Your task to perform on an android device: delete location history Image 0: 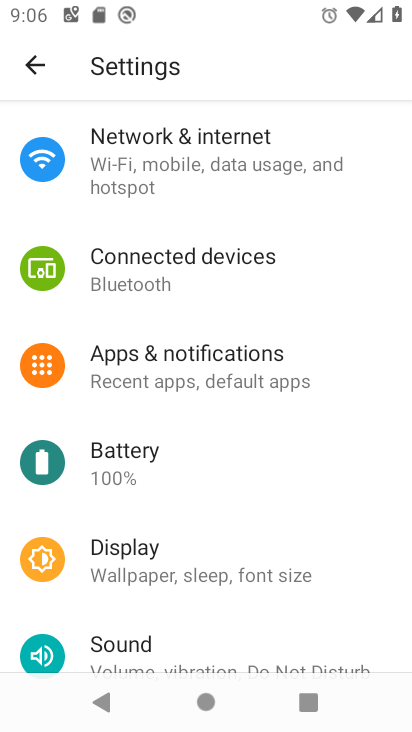
Step 0: press home button
Your task to perform on an android device: delete location history Image 1: 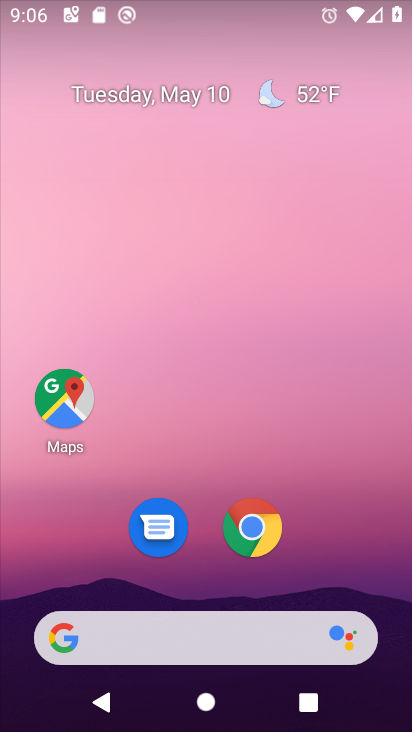
Step 1: click (56, 369)
Your task to perform on an android device: delete location history Image 2: 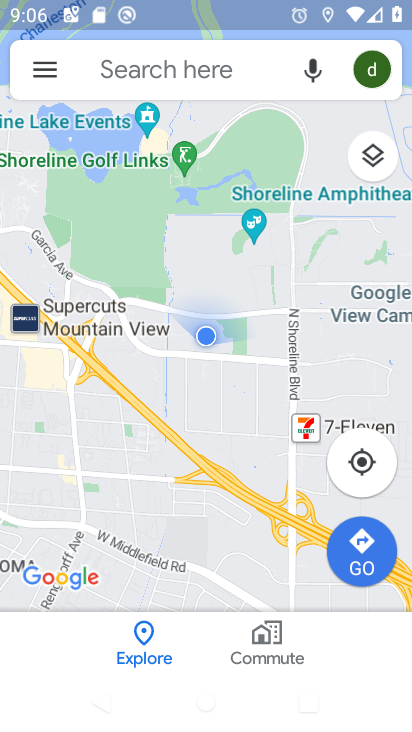
Step 2: click (51, 80)
Your task to perform on an android device: delete location history Image 3: 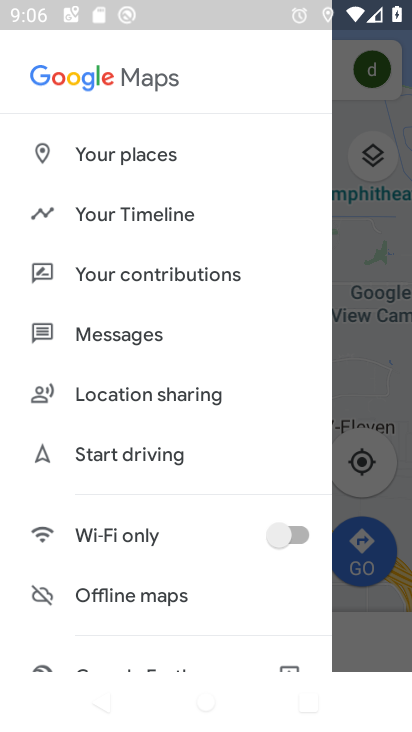
Step 3: drag from (145, 549) to (157, 355)
Your task to perform on an android device: delete location history Image 4: 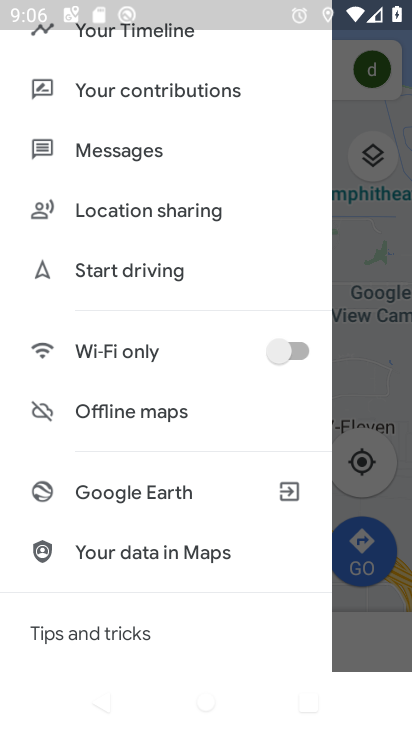
Step 4: drag from (126, 620) to (145, 335)
Your task to perform on an android device: delete location history Image 5: 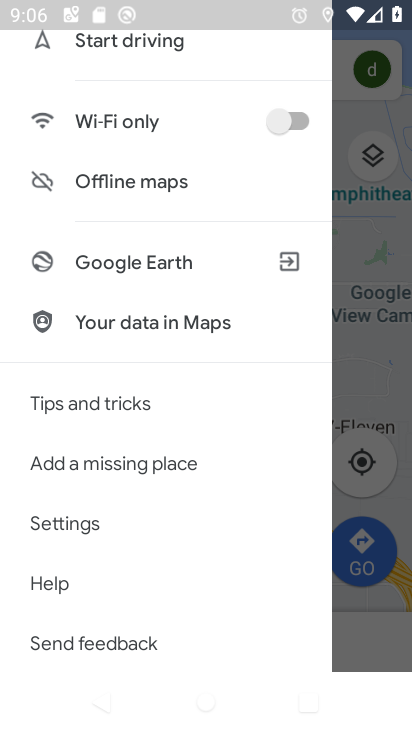
Step 5: click (78, 522)
Your task to perform on an android device: delete location history Image 6: 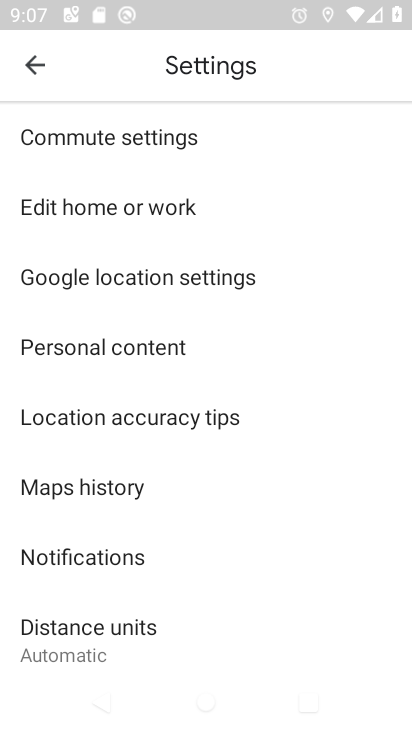
Step 6: click (115, 490)
Your task to perform on an android device: delete location history Image 7: 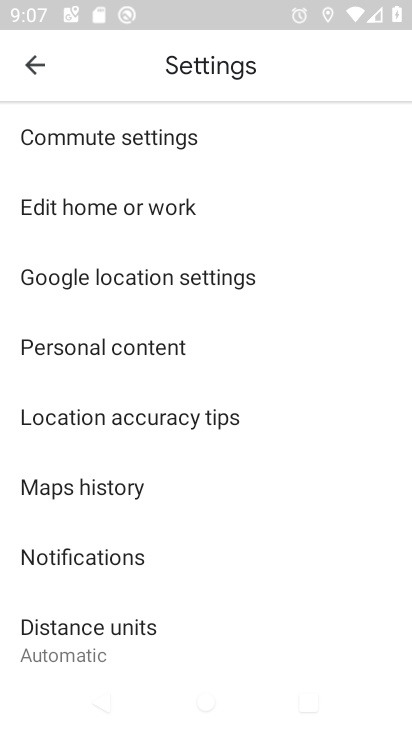
Step 7: click (100, 492)
Your task to perform on an android device: delete location history Image 8: 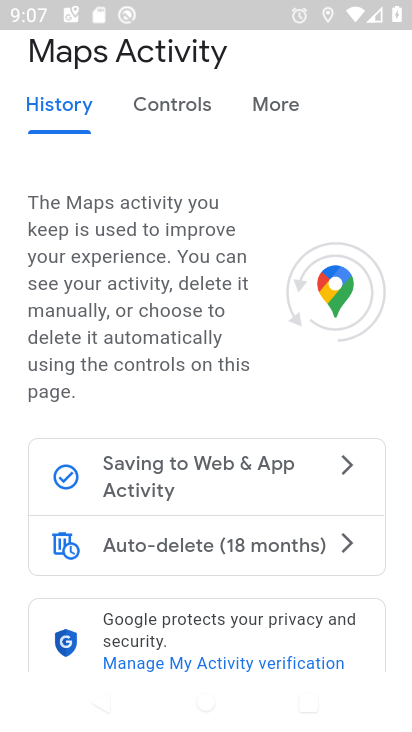
Step 8: drag from (107, 555) to (95, 326)
Your task to perform on an android device: delete location history Image 9: 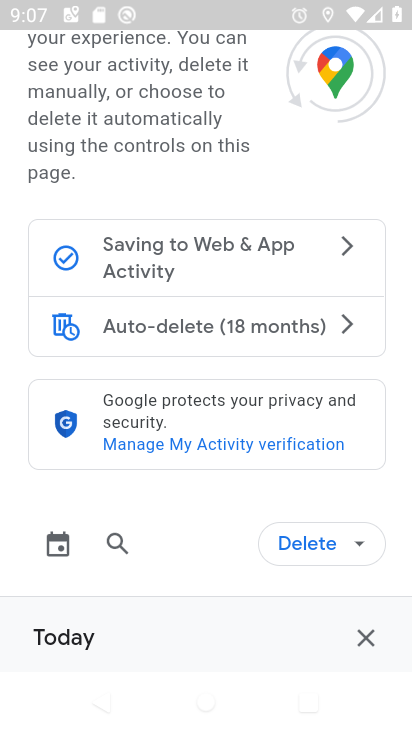
Step 9: click (319, 542)
Your task to perform on an android device: delete location history Image 10: 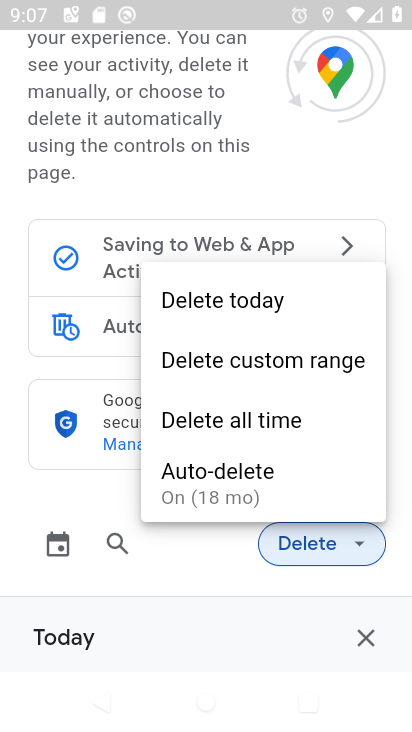
Step 10: click (360, 543)
Your task to perform on an android device: delete location history Image 11: 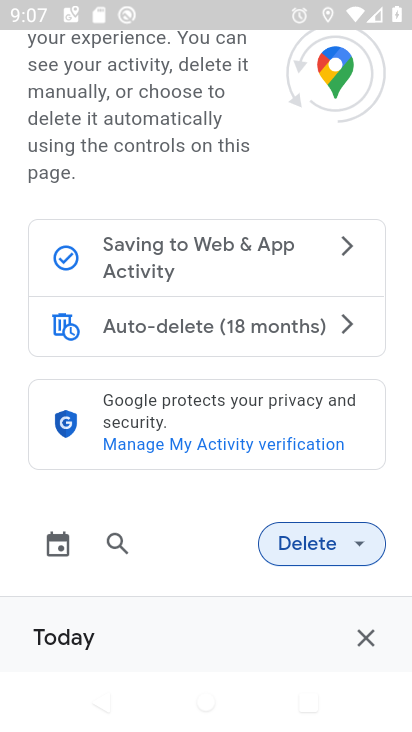
Step 11: click (360, 543)
Your task to perform on an android device: delete location history Image 12: 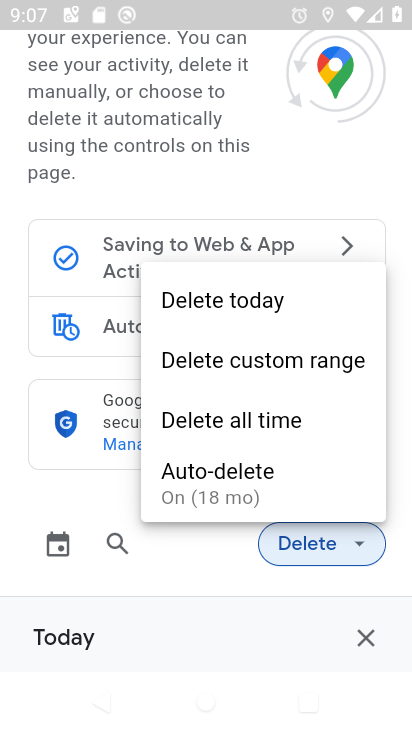
Step 12: click (224, 480)
Your task to perform on an android device: delete location history Image 13: 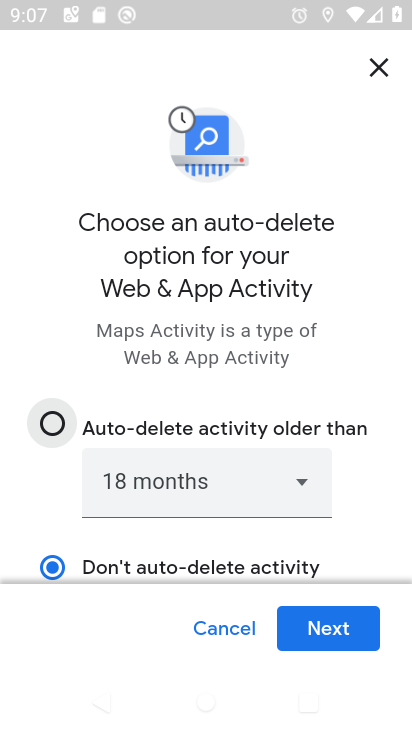
Step 13: click (312, 624)
Your task to perform on an android device: delete location history Image 14: 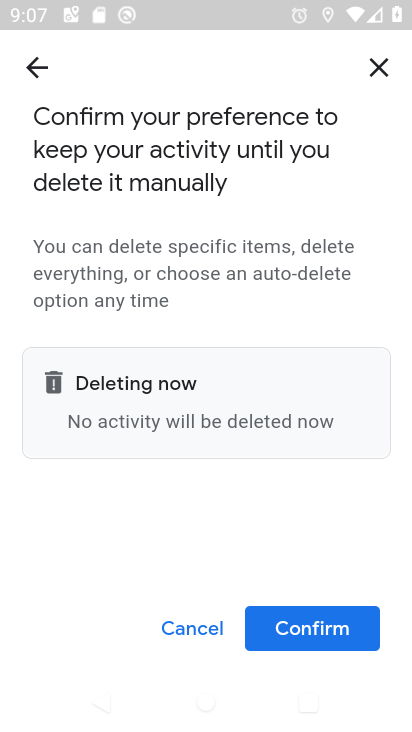
Step 14: click (312, 624)
Your task to perform on an android device: delete location history Image 15: 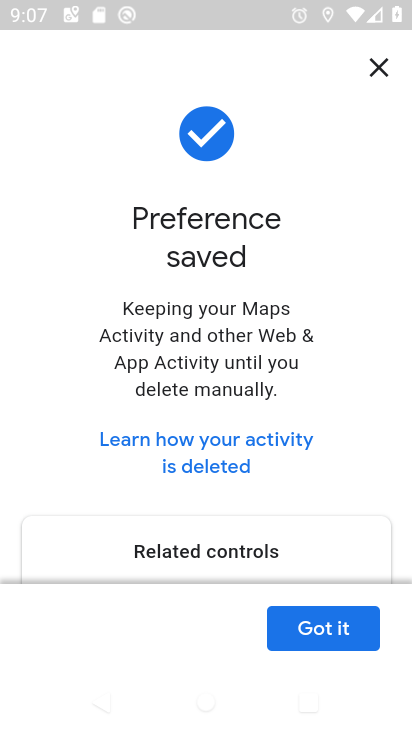
Step 15: click (312, 624)
Your task to perform on an android device: delete location history Image 16: 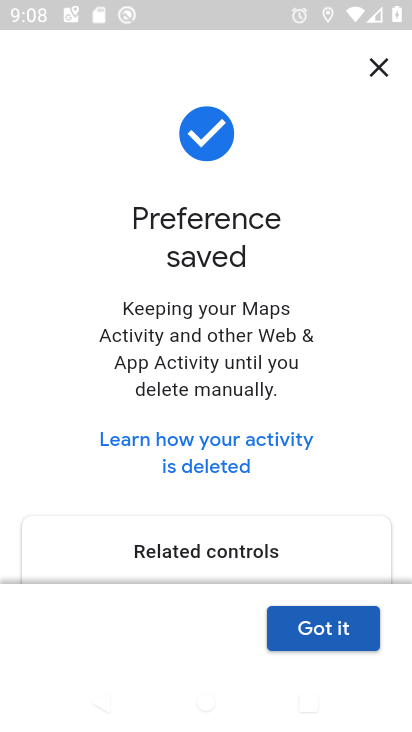
Step 16: click (330, 625)
Your task to perform on an android device: delete location history Image 17: 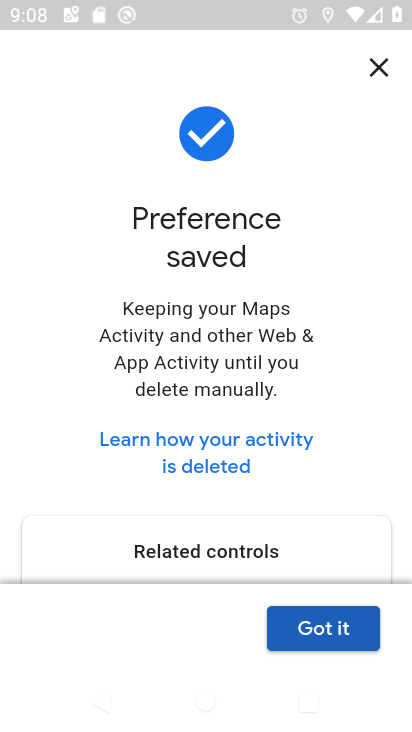
Step 17: task complete